Your task to perform on an android device: Go to eBay Image 0: 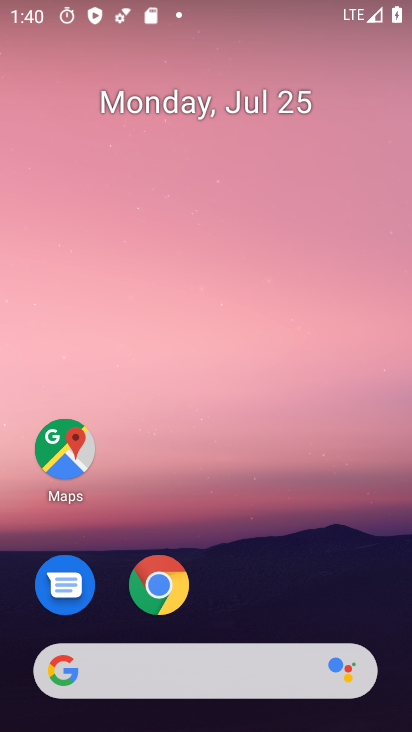
Step 0: click (161, 590)
Your task to perform on an android device: Go to eBay Image 1: 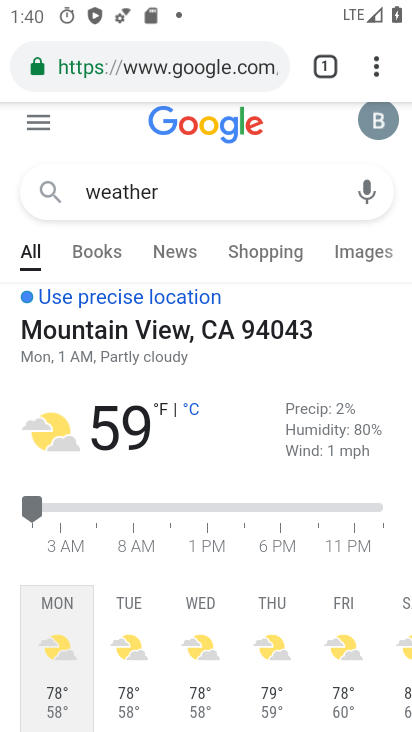
Step 1: click (221, 47)
Your task to perform on an android device: Go to eBay Image 2: 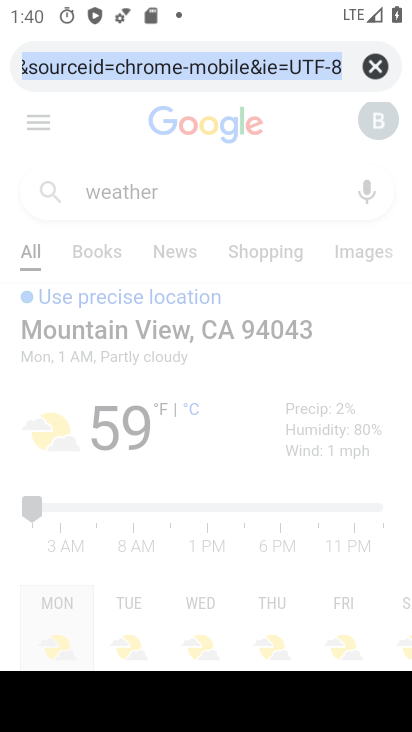
Step 2: type "ebay"
Your task to perform on an android device: Go to eBay Image 3: 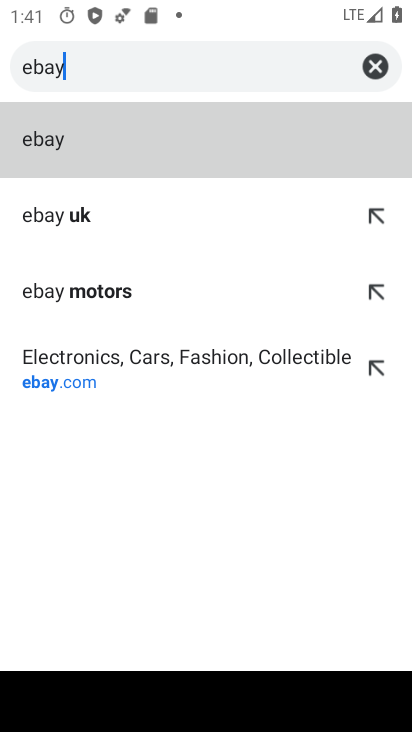
Step 3: click (103, 385)
Your task to perform on an android device: Go to eBay Image 4: 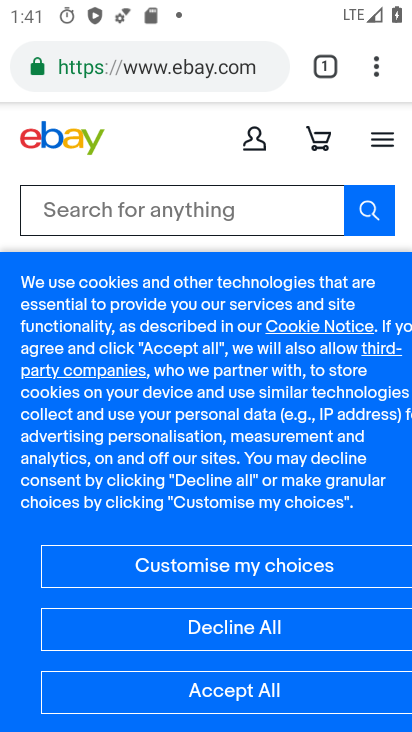
Step 4: task complete